Your task to perform on an android device: read, delete, or share a saved page in the chrome app Image 0: 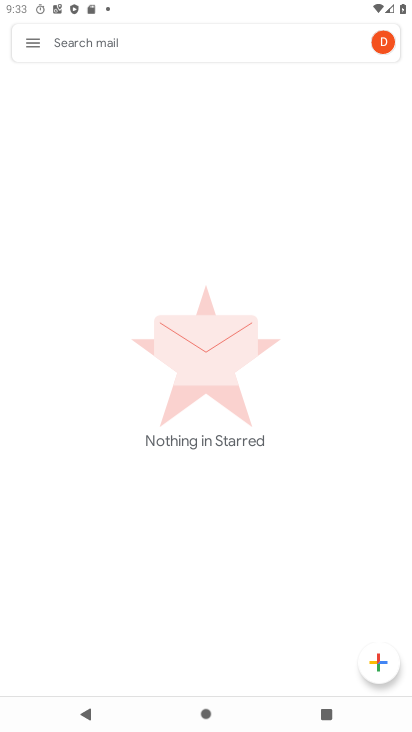
Step 0: press home button
Your task to perform on an android device: read, delete, or share a saved page in the chrome app Image 1: 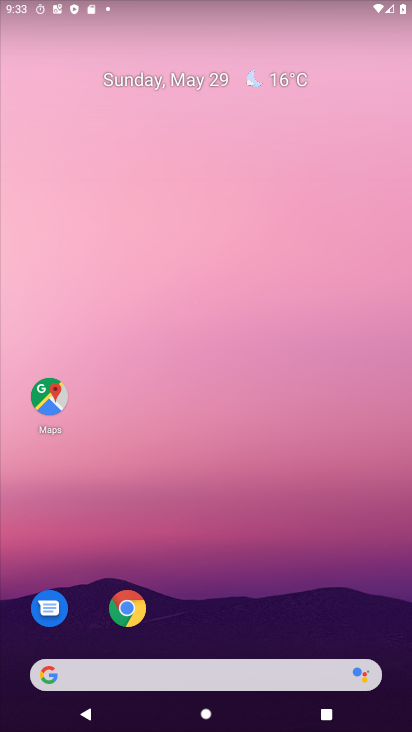
Step 1: click (120, 618)
Your task to perform on an android device: read, delete, or share a saved page in the chrome app Image 2: 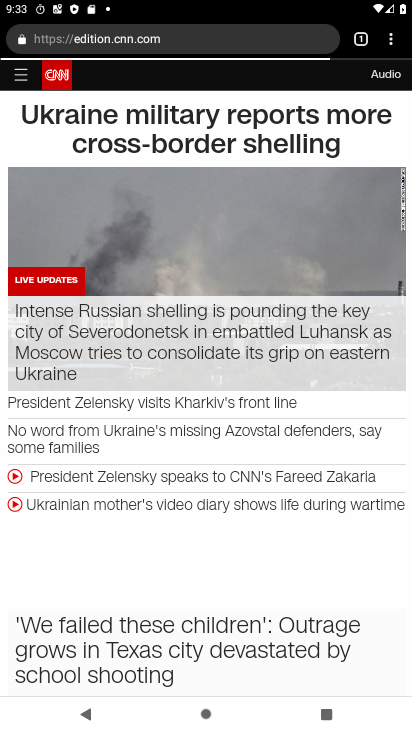
Step 2: click (393, 34)
Your task to perform on an android device: read, delete, or share a saved page in the chrome app Image 3: 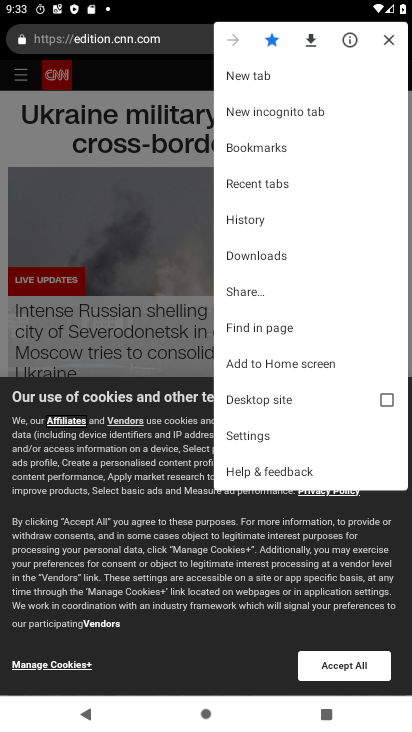
Step 3: click (267, 435)
Your task to perform on an android device: read, delete, or share a saved page in the chrome app Image 4: 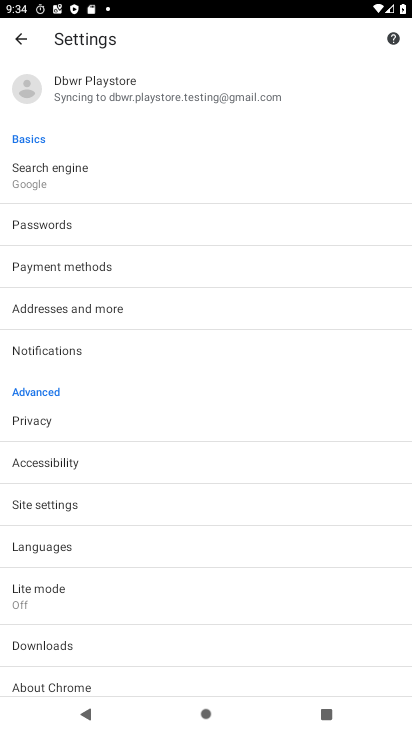
Step 4: task complete